Your task to perform on an android device: toggle location history Image 0: 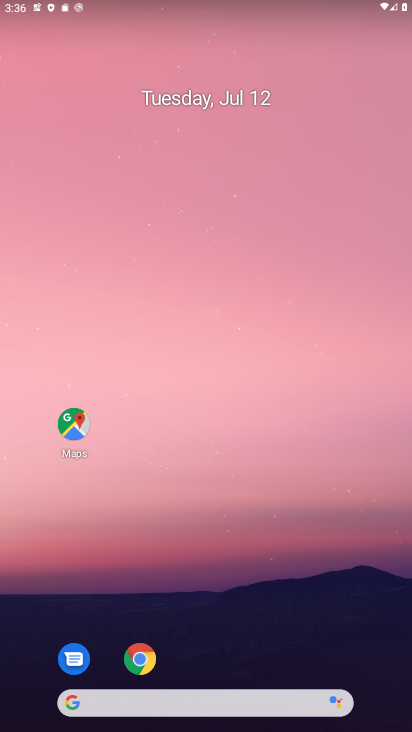
Step 0: drag from (199, 719) to (210, 177)
Your task to perform on an android device: toggle location history Image 1: 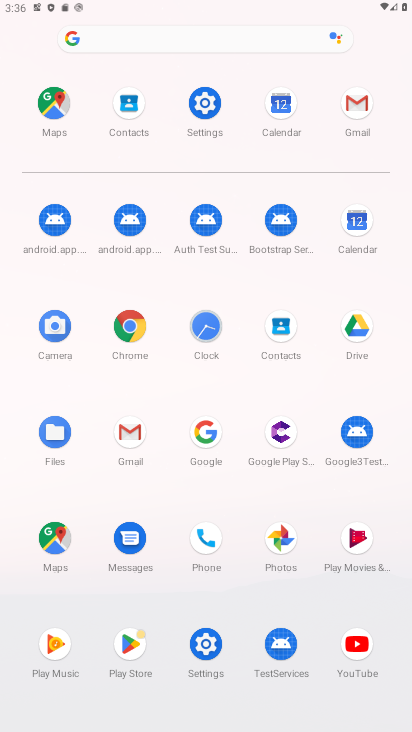
Step 1: click (207, 99)
Your task to perform on an android device: toggle location history Image 2: 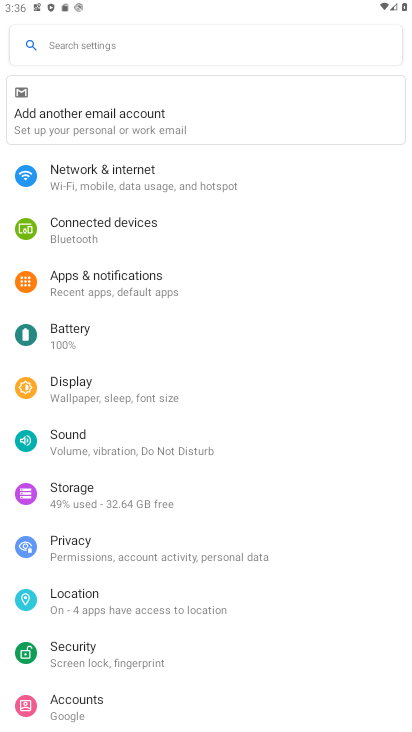
Step 2: click (77, 594)
Your task to perform on an android device: toggle location history Image 3: 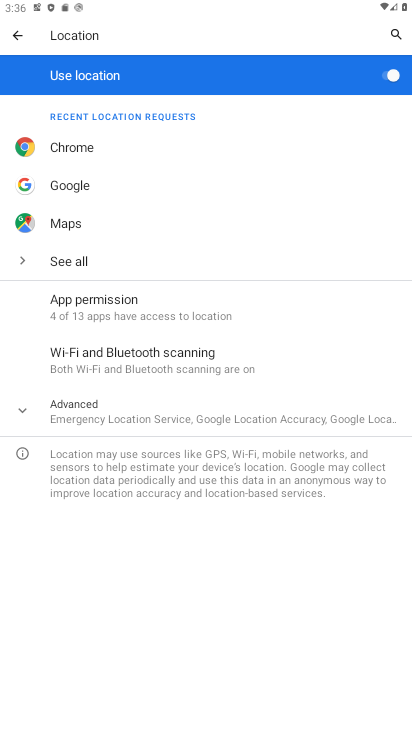
Step 3: click (82, 410)
Your task to perform on an android device: toggle location history Image 4: 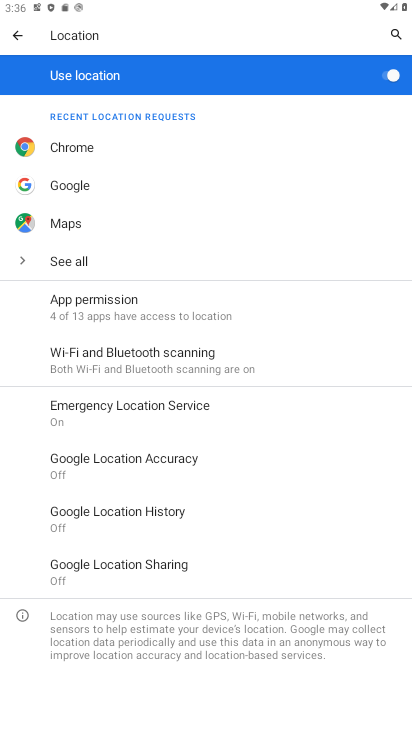
Step 4: click (155, 507)
Your task to perform on an android device: toggle location history Image 5: 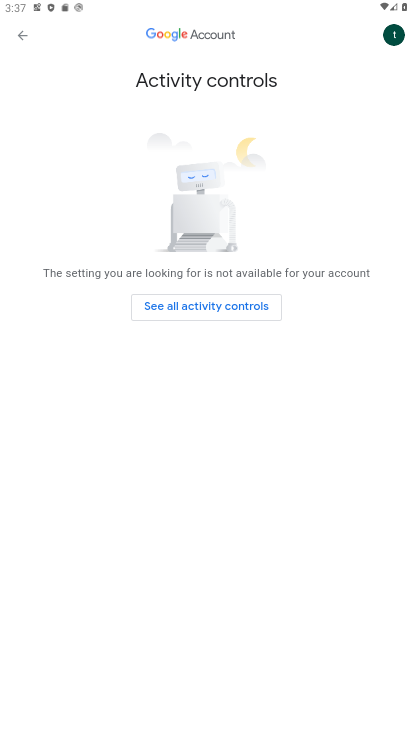
Step 5: click (244, 310)
Your task to perform on an android device: toggle location history Image 6: 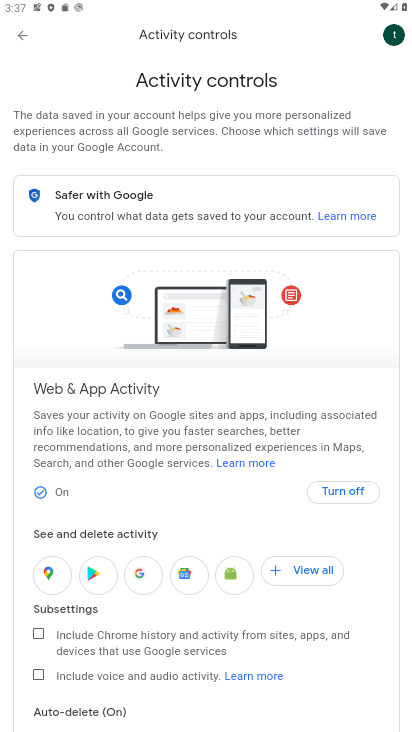
Step 6: drag from (204, 674) to (213, 410)
Your task to perform on an android device: toggle location history Image 7: 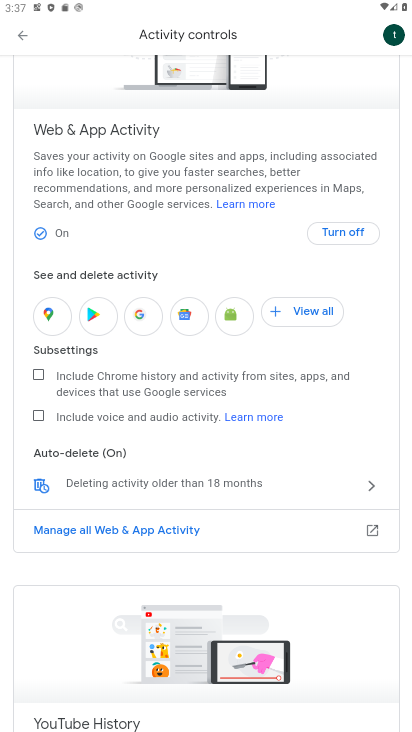
Step 7: drag from (226, 622) to (242, 414)
Your task to perform on an android device: toggle location history Image 8: 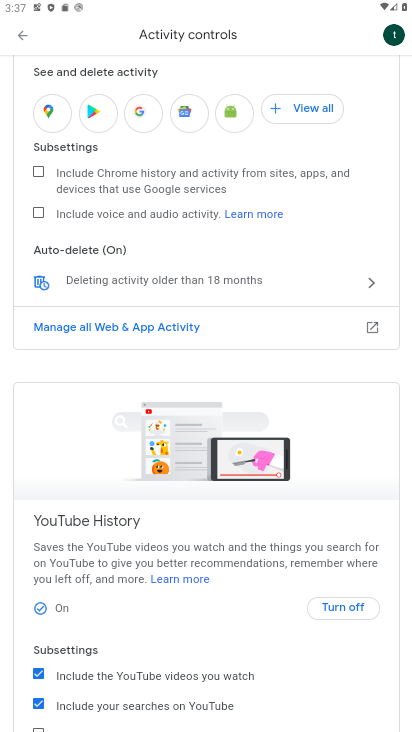
Step 8: click (356, 605)
Your task to perform on an android device: toggle location history Image 9: 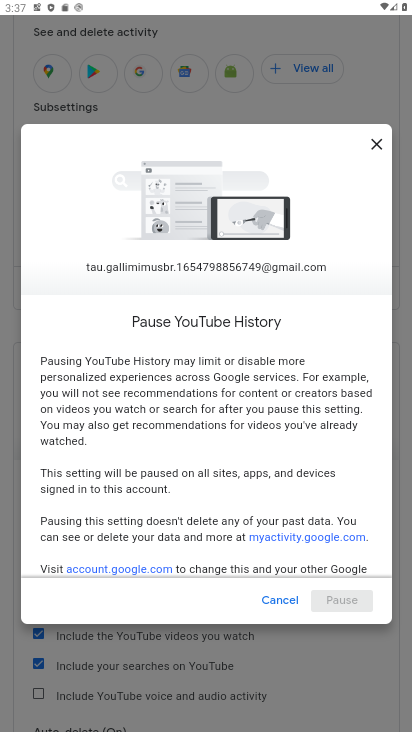
Step 9: drag from (232, 554) to (226, 261)
Your task to perform on an android device: toggle location history Image 10: 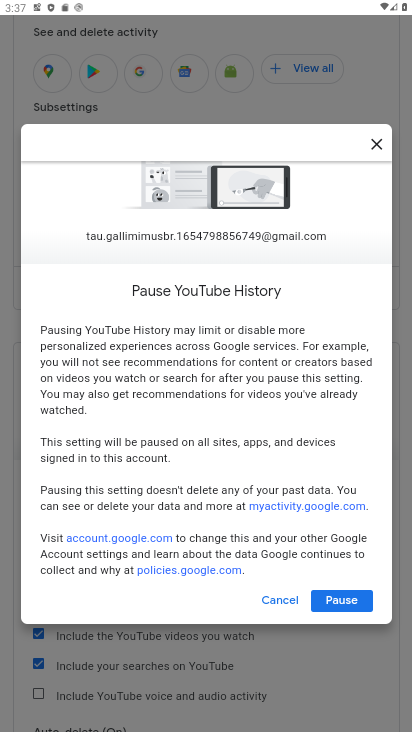
Step 10: click (340, 601)
Your task to perform on an android device: toggle location history Image 11: 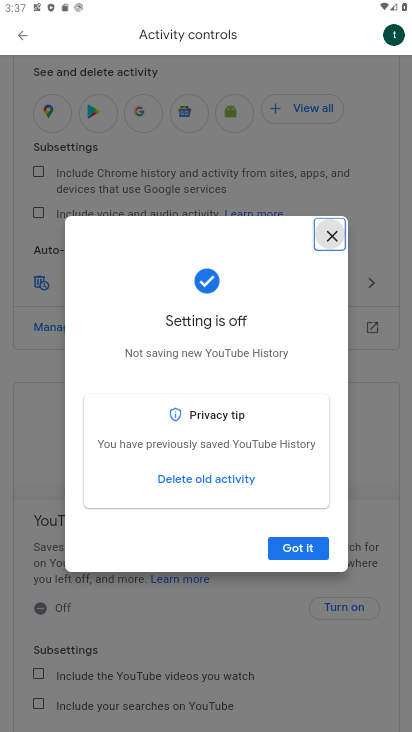
Step 11: click (303, 541)
Your task to perform on an android device: toggle location history Image 12: 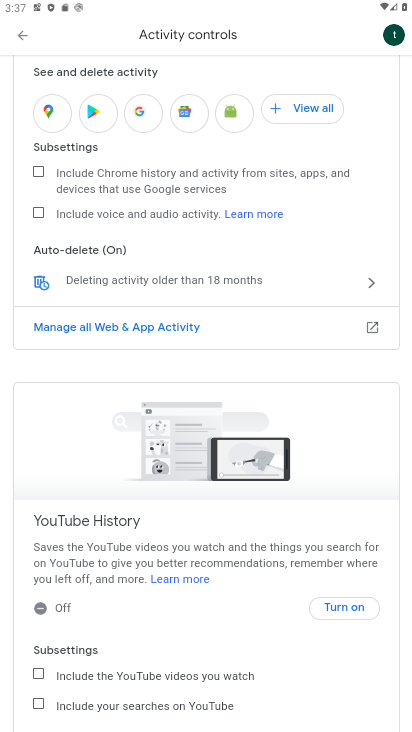
Step 12: task complete